Your task to perform on an android device: toggle data saver in the chrome app Image 0: 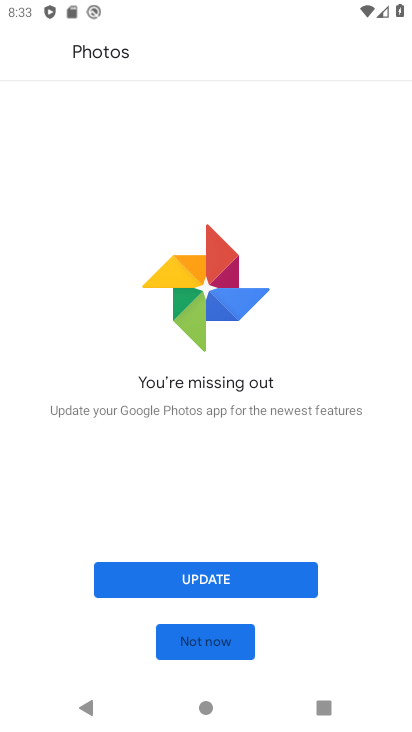
Step 0: press home button
Your task to perform on an android device: toggle data saver in the chrome app Image 1: 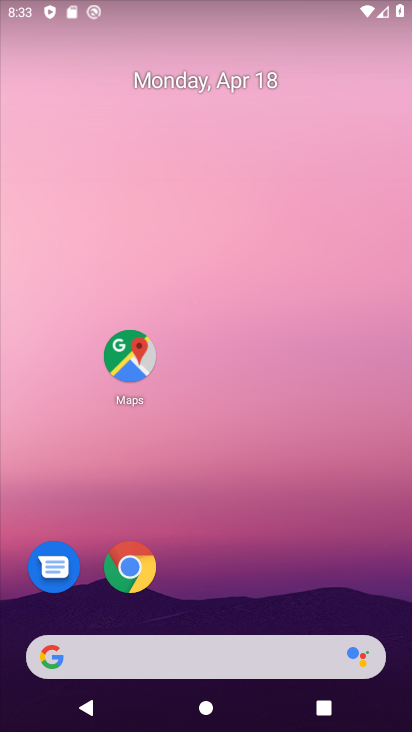
Step 1: click (117, 583)
Your task to perform on an android device: toggle data saver in the chrome app Image 2: 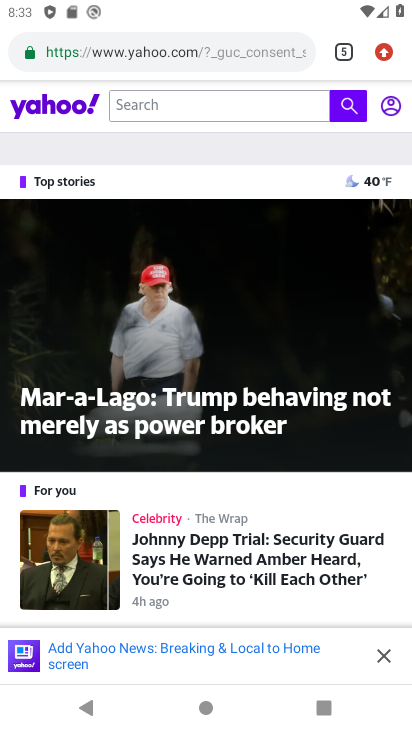
Step 2: click (380, 51)
Your task to perform on an android device: toggle data saver in the chrome app Image 3: 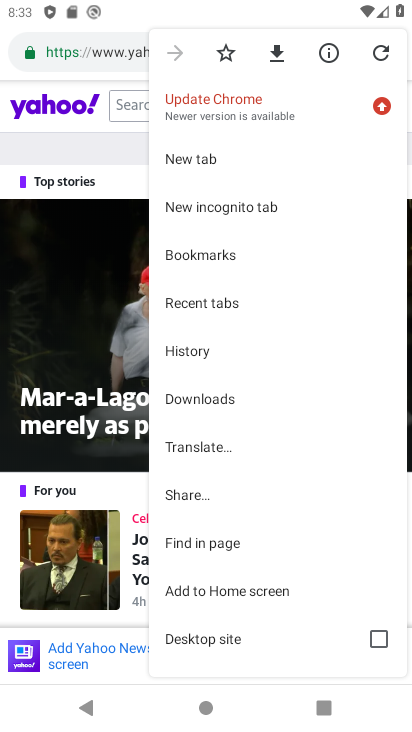
Step 3: drag from (239, 626) to (259, 508)
Your task to perform on an android device: toggle data saver in the chrome app Image 4: 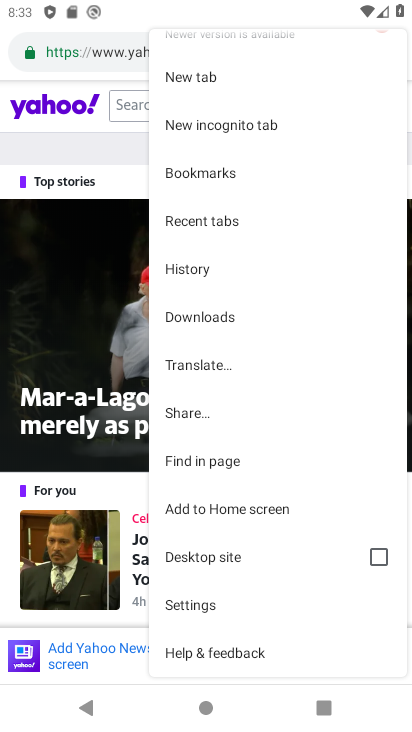
Step 4: click (201, 598)
Your task to perform on an android device: toggle data saver in the chrome app Image 5: 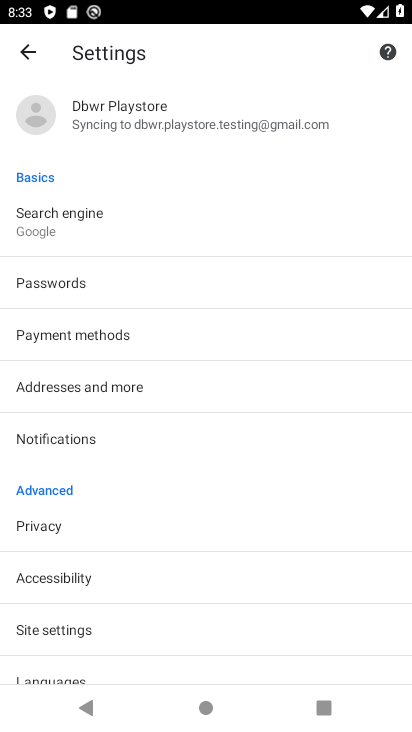
Step 5: drag from (83, 623) to (100, 552)
Your task to perform on an android device: toggle data saver in the chrome app Image 6: 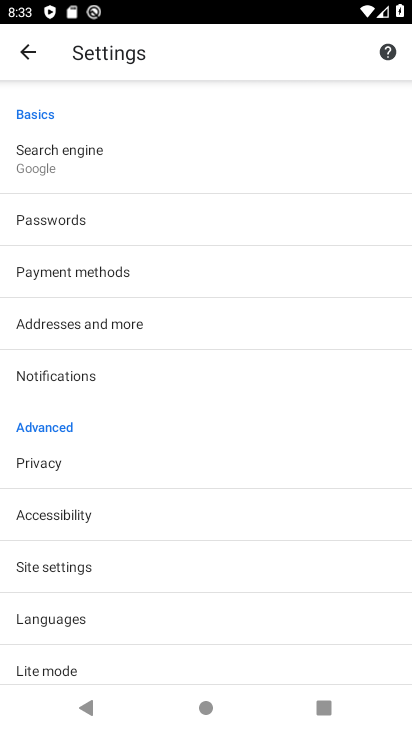
Step 6: click (40, 660)
Your task to perform on an android device: toggle data saver in the chrome app Image 7: 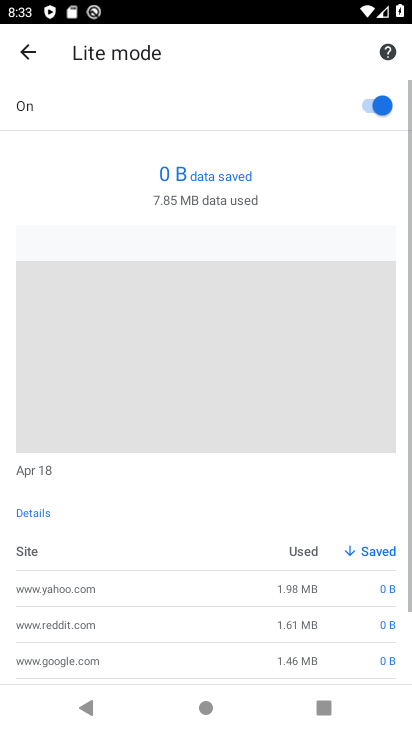
Step 7: task complete